Your task to perform on an android device: Go to display settings Image 0: 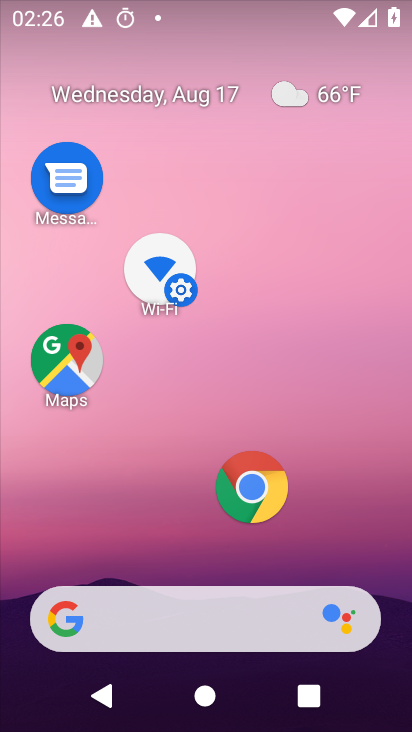
Step 0: press home button
Your task to perform on an android device: Go to display settings Image 1: 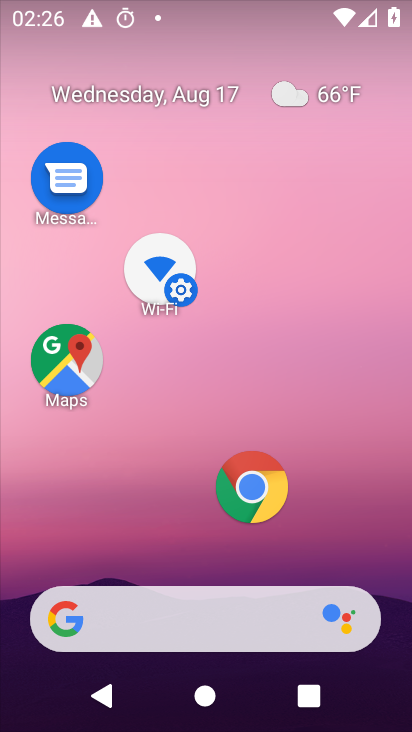
Step 1: drag from (337, 531) to (358, 5)
Your task to perform on an android device: Go to display settings Image 2: 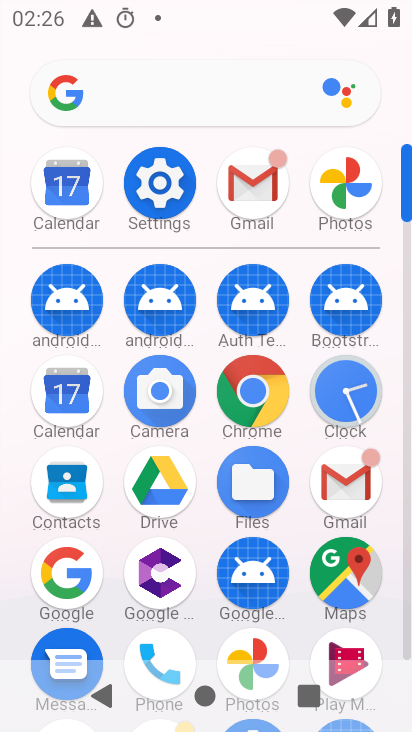
Step 2: click (164, 185)
Your task to perform on an android device: Go to display settings Image 3: 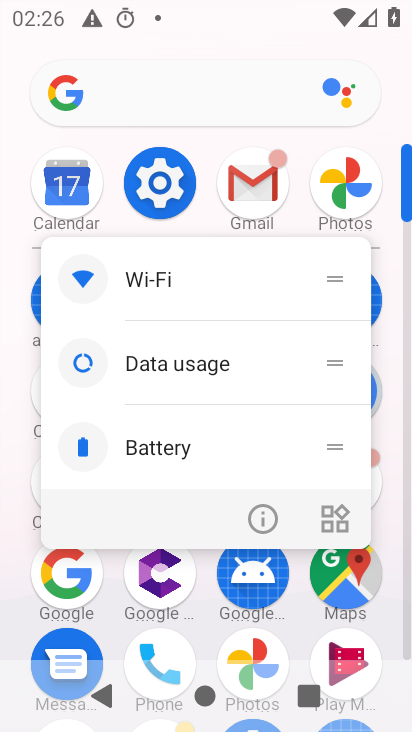
Step 3: click (164, 185)
Your task to perform on an android device: Go to display settings Image 4: 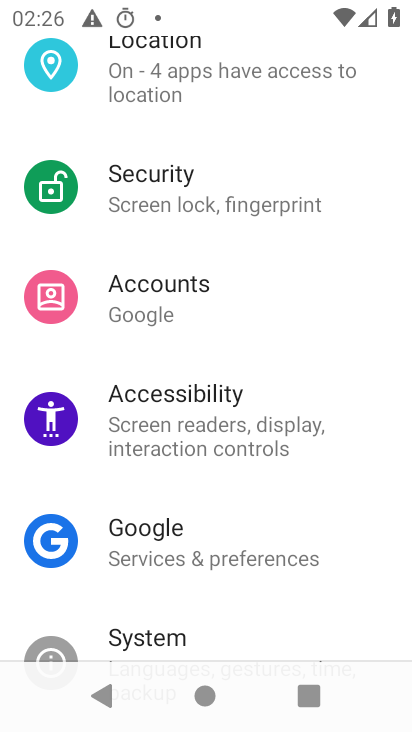
Step 4: drag from (295, 156) to (357, 606)
Your task to perform on an android device: Go to display settings Image 5: 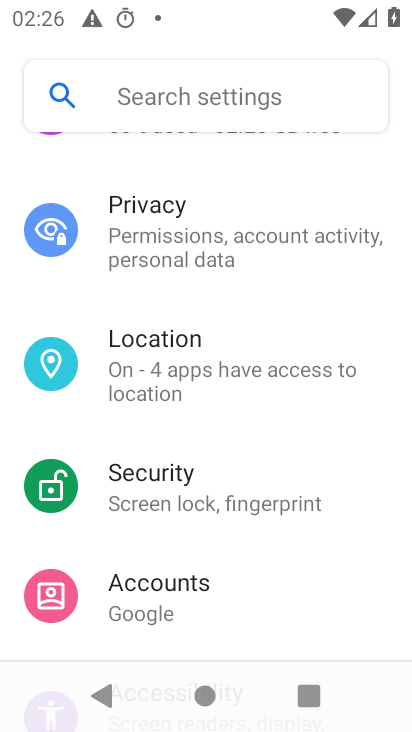
Step 5: drag from (244, 188) to (328, 629)
Your task to perform on an android device: Go to display settings Image 6: 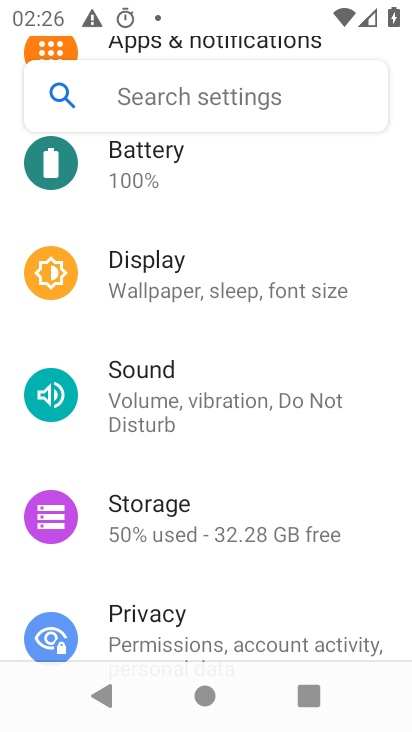
Step 6: click (158, 286)
Your task to perform on an android device: Go to display settings Image 7: 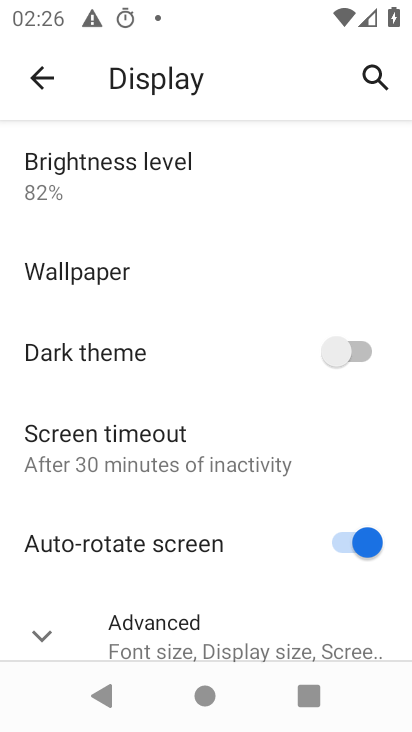
Step 7: task complete